Your task to perform on an android device: Show me recent news Image 0: 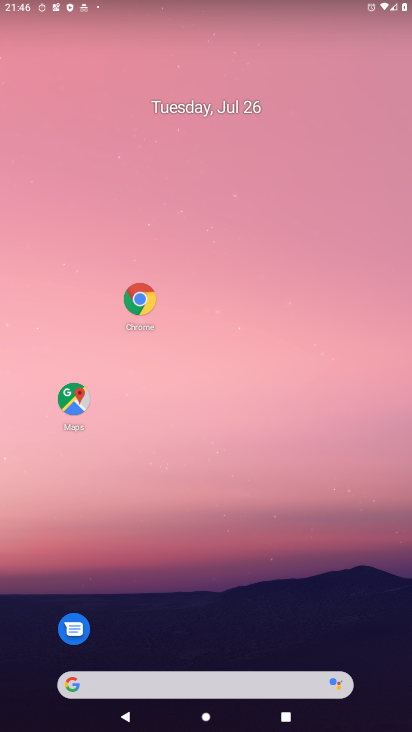
Step 0: click (16, 55)
Your task to perform on an android device: Show me recent news Image 1: 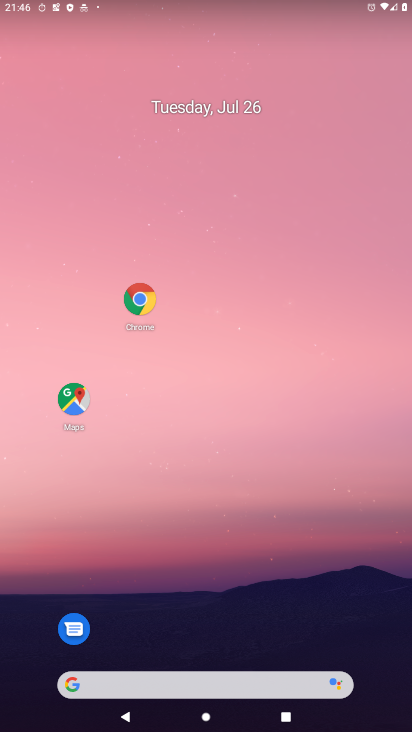
Step 1: click (16, 55)
Your task to perform on an android device: Show me recent news Image 2: 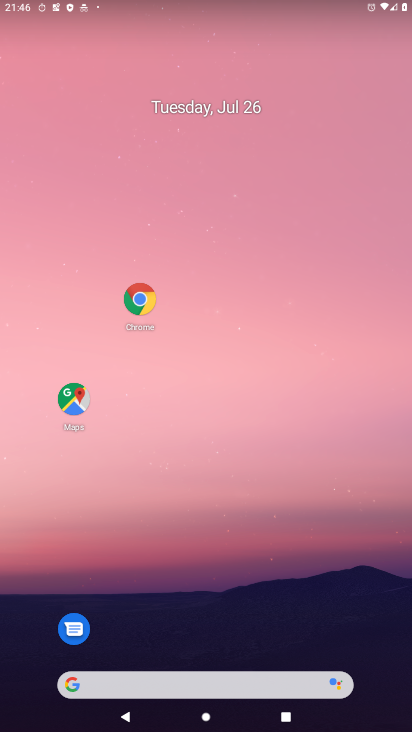
Step 2: drag from (198, 565) to (210, 92)
Your task to perform on an android device: Show me recent news Image 3: 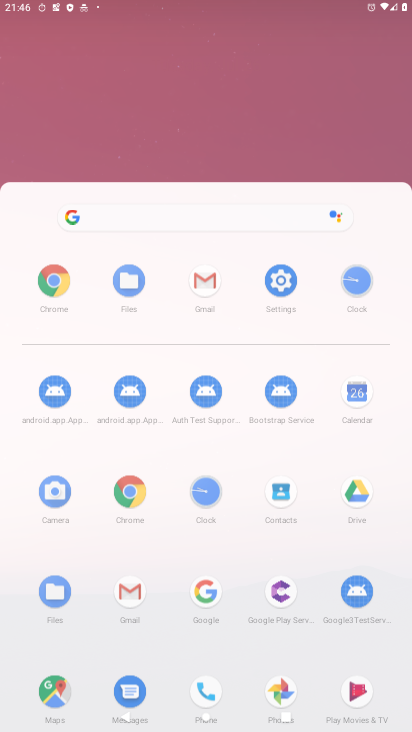
Step 3: drag from (297, 512) to (281, 231)
Your task to perform on an android device: Show me recent news Image 4: 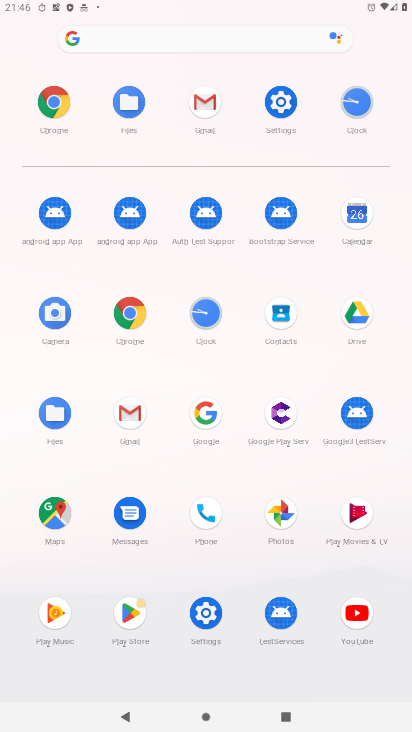
Step 4: click (240, 407)
Your task to perform on an android device: Show me recent news Image 5: 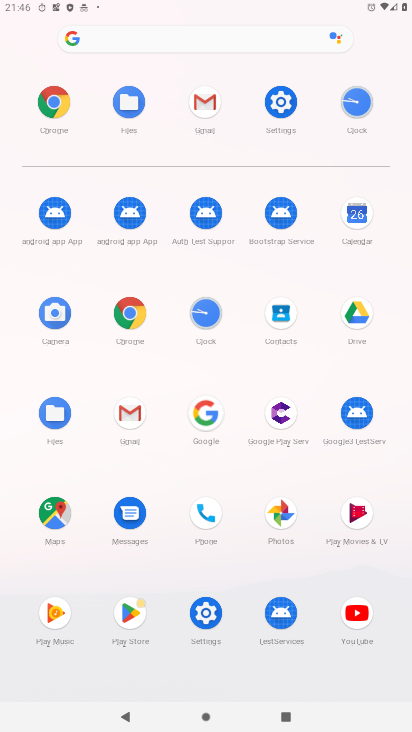
Step 5: click (132, 320)
Your task to perform on an android device: Show me recent news Image 6: 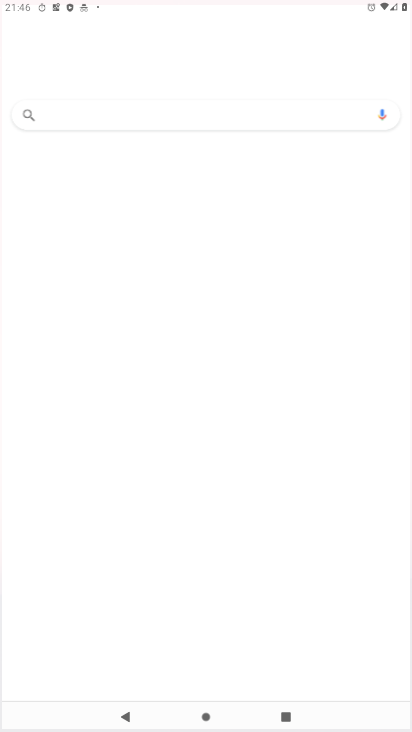
Step 6: click (132, 320)
Your task to perform on an android device: Show me recent news Image 7: 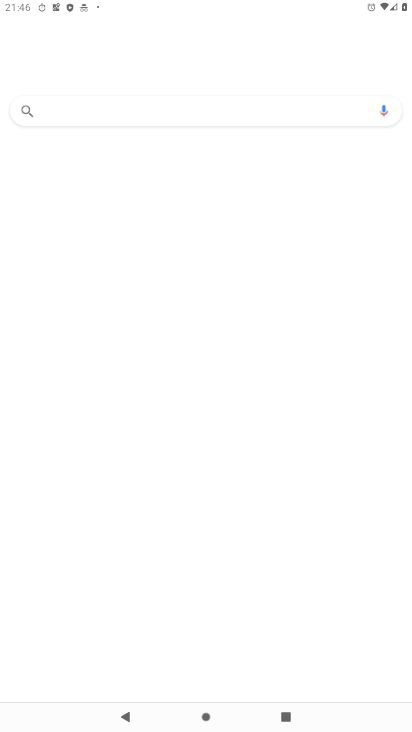
Step 7: click (133, 317)
Your task to perform on an android device: Show me recent news Image 8: 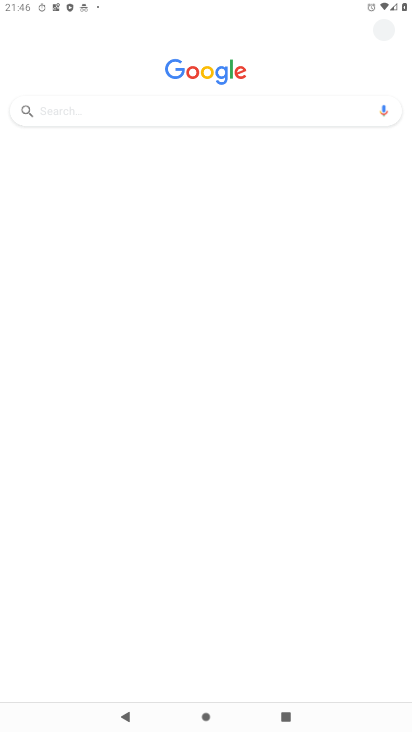
Step 8: click (133, 317)
Your task to perform on an android device: Show me recent news Image 9: 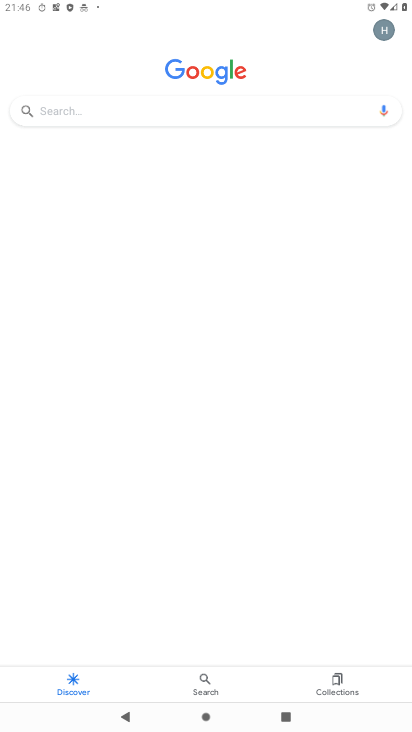
Step 9: click (134, 317)
Your task to perform on an android device: Show me recent news Image 10: 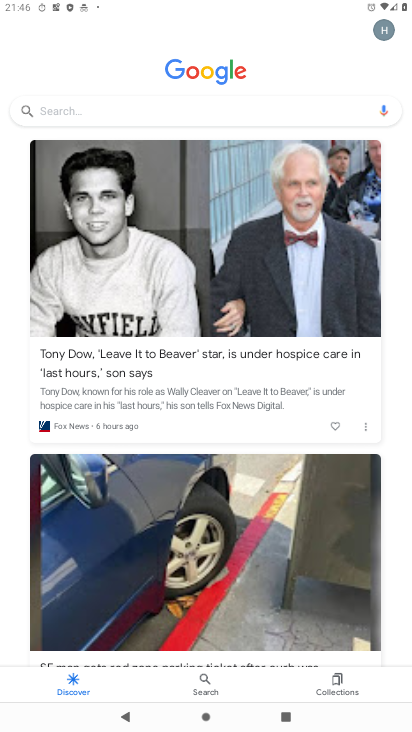
Step 10: task complete